Your task to perform on an android device: turn off smart reply in the gmail app Image 0: 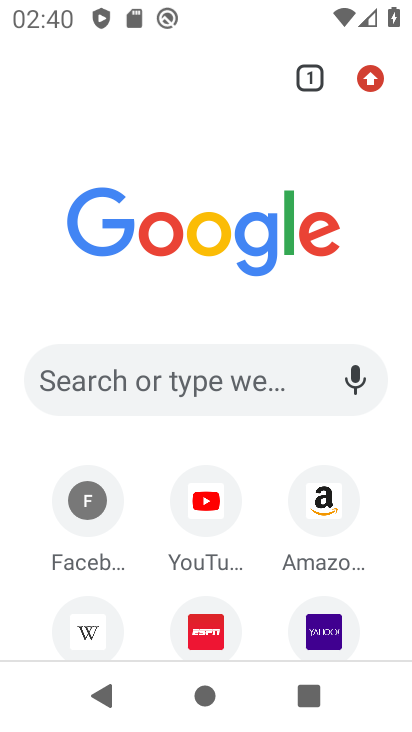
Step 0: press home button
Your task to perform on an android device: turn off smart reply in the gmail app Image 1: 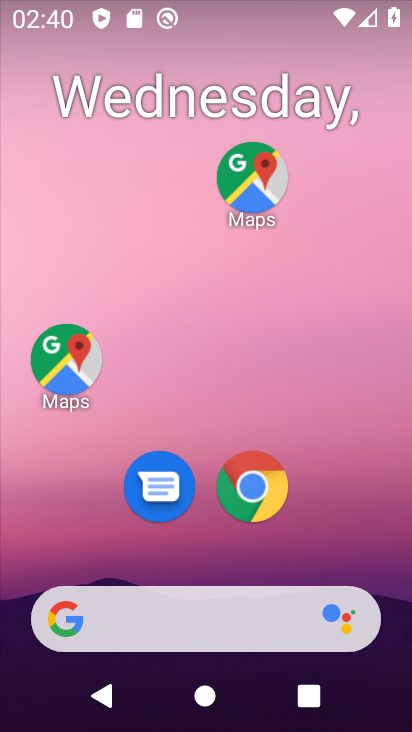
Step 1: drag from (220, 569) to (200, 101)
Your task to perform on an android device: turn off smart reply in the gmail app Image 2: 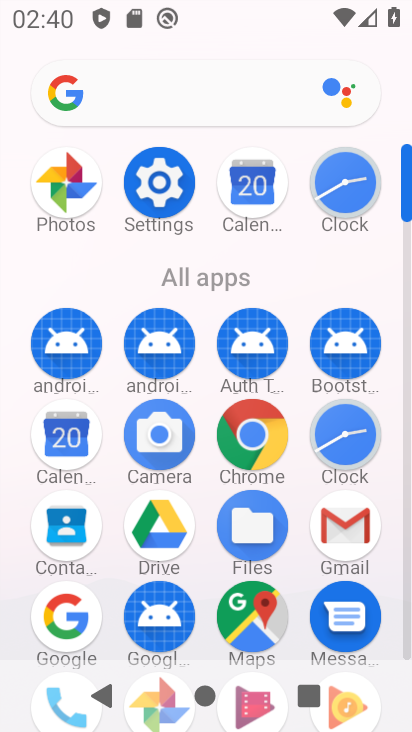
Step 2: click (349, 546)
Your task to perform on an android device: turn off smart reply in the gmail app Image 3: 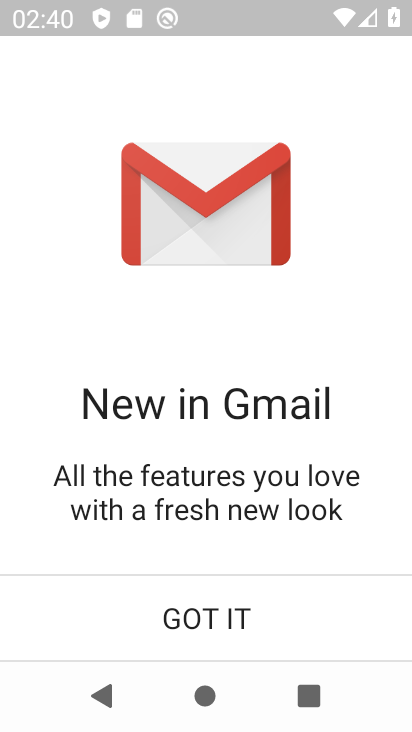
Step 3: click (202, 614)
Your task to perform on an android device: turn off smart reply in the gmail app Image 4: 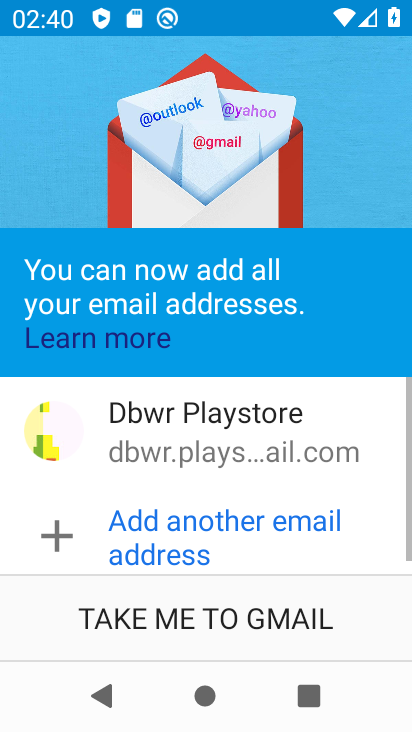
Step 4: click (201, 609)
Your task to perform on an android device: turn off smart reply in the gmail app Image 5: 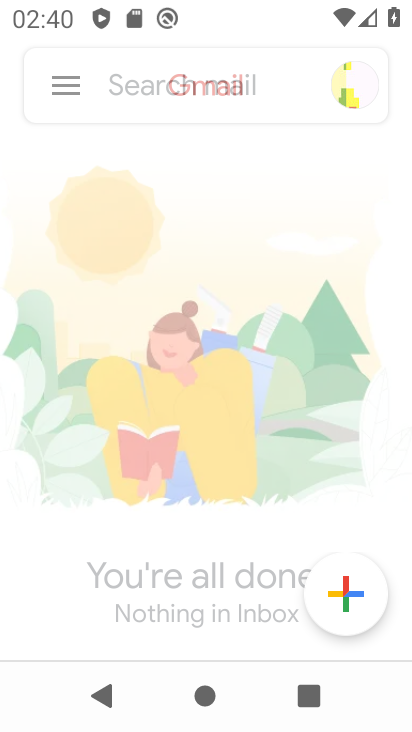
Step 5: click (64, 83)
Your task to perform on an android device: turn off smart reply in the gmail app Image 6: 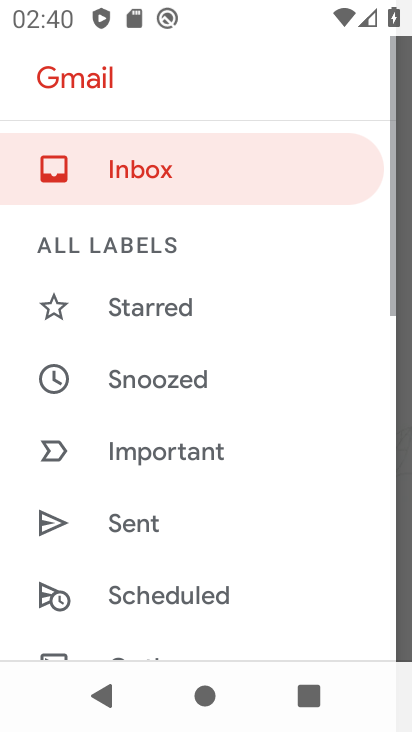
Step 6: drag from (157, 614) to (107, 21)
Your task to perform on an android device: turn off smart reply in the gmail app Image 7: 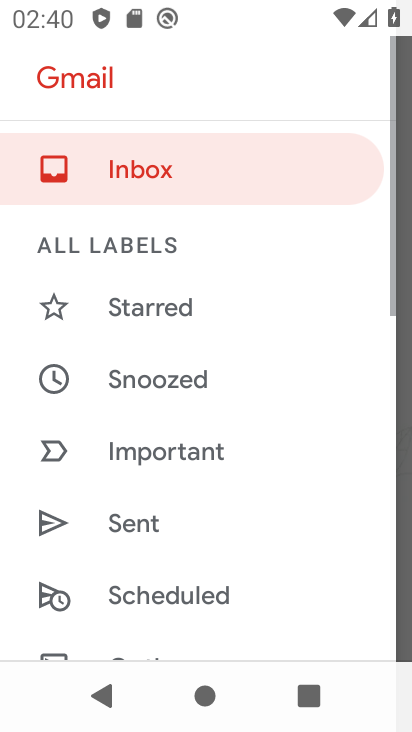
Step 7: drag from (215, 581) to (203, 103)
Your task to perform on an android device: turn off smart reply in the gmail app Image 8: 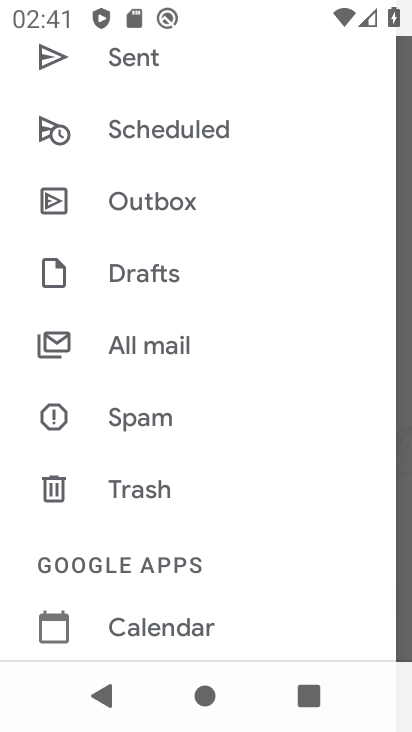
Step 8: drag from (200, 597) to (166, 153)
Your task to perform on an android device: turn off smart reply in the gmail app Image 9: 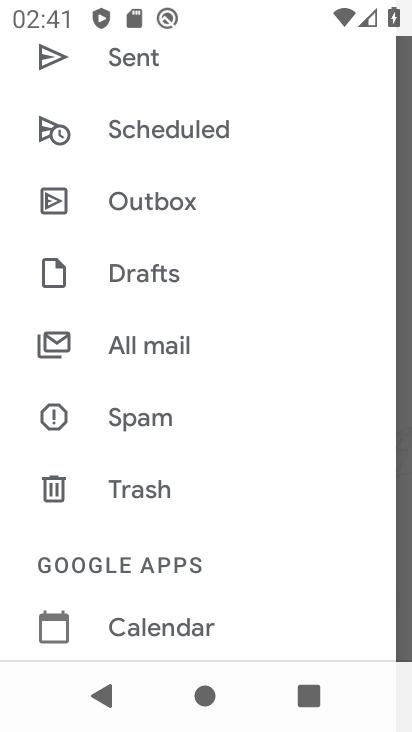
Step 9: drag from (103, 571) to (103, 0)
Your task to perform on an android device: turn off smart reply in the gmail app Image 10: 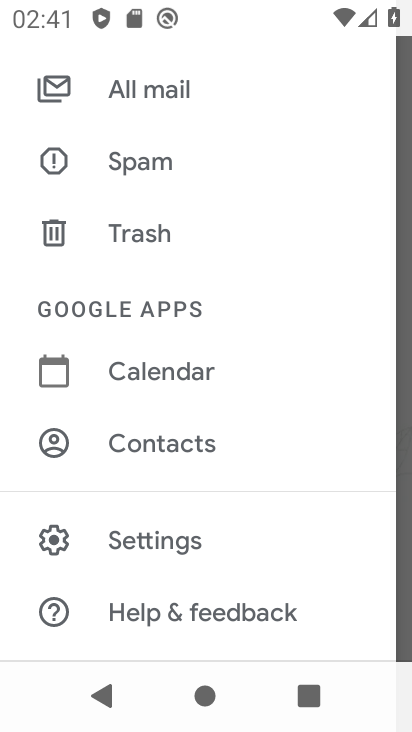
Step 10: click (183, 543)
Your task to perform on an android device: turn off smart reply in the gmail app Image 11: 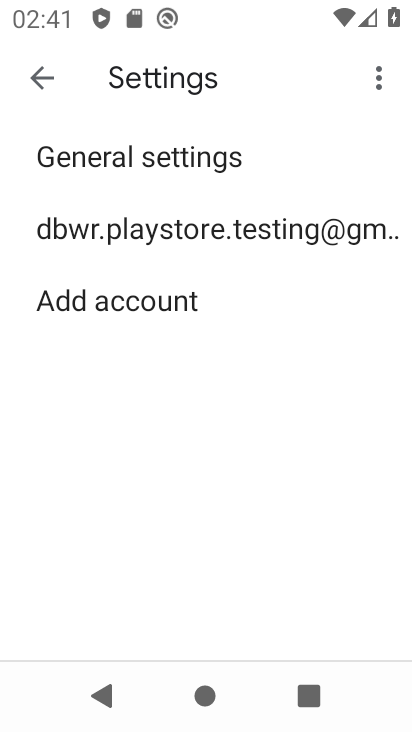
Step 11: click (188, 230)
Your task to perform on an android device: turn off smart reply in the gmail app Image 12: 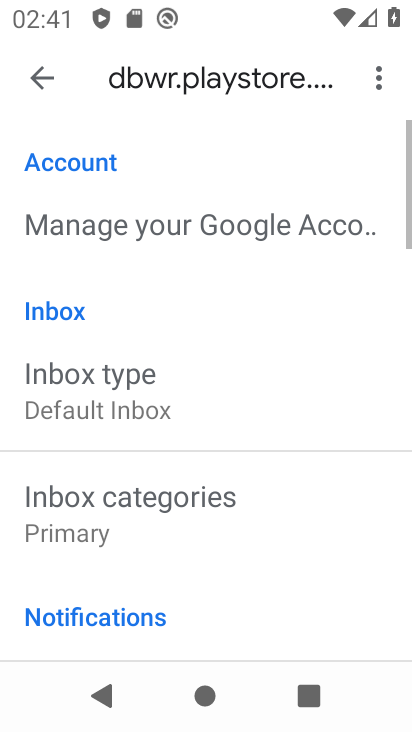
Step 12: drag from (218, 564) to (174, 48)
Your task to perform on an android device: turn off smart reply in the gmail app Image 13: 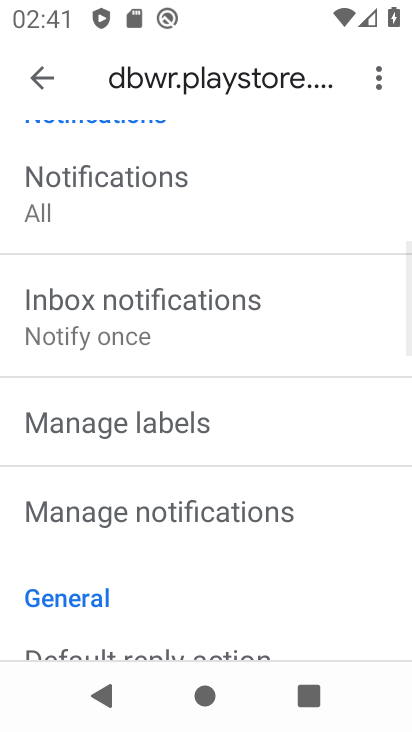
Step 13: drag from (208, 526) to (181, 147)
Your task to perform on an android device: turn off smart reply in the gmail app Image 14: 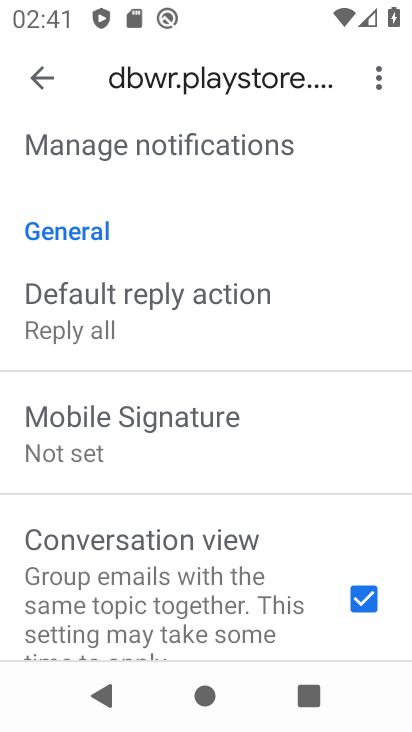
Step 14: drag from (177, 553) to (101, 111)
Your task to perform on an android device: turn off smart reply in the gmail app Image 15: 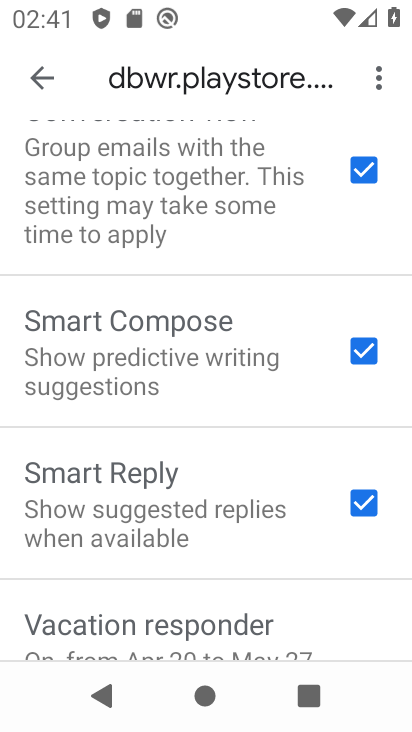
Step 15: click (352, 494)
Your task to perform on an android device: turn off smart reply in the gmail app Image 16: 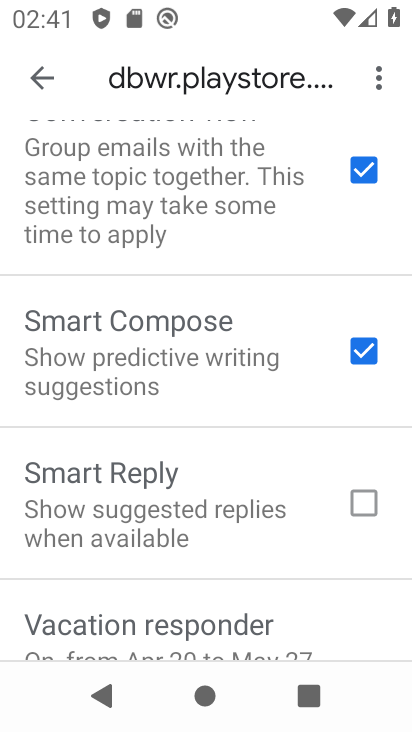
Step 16: task complete